Your task to perform on an android device: set an alarm Image 0: 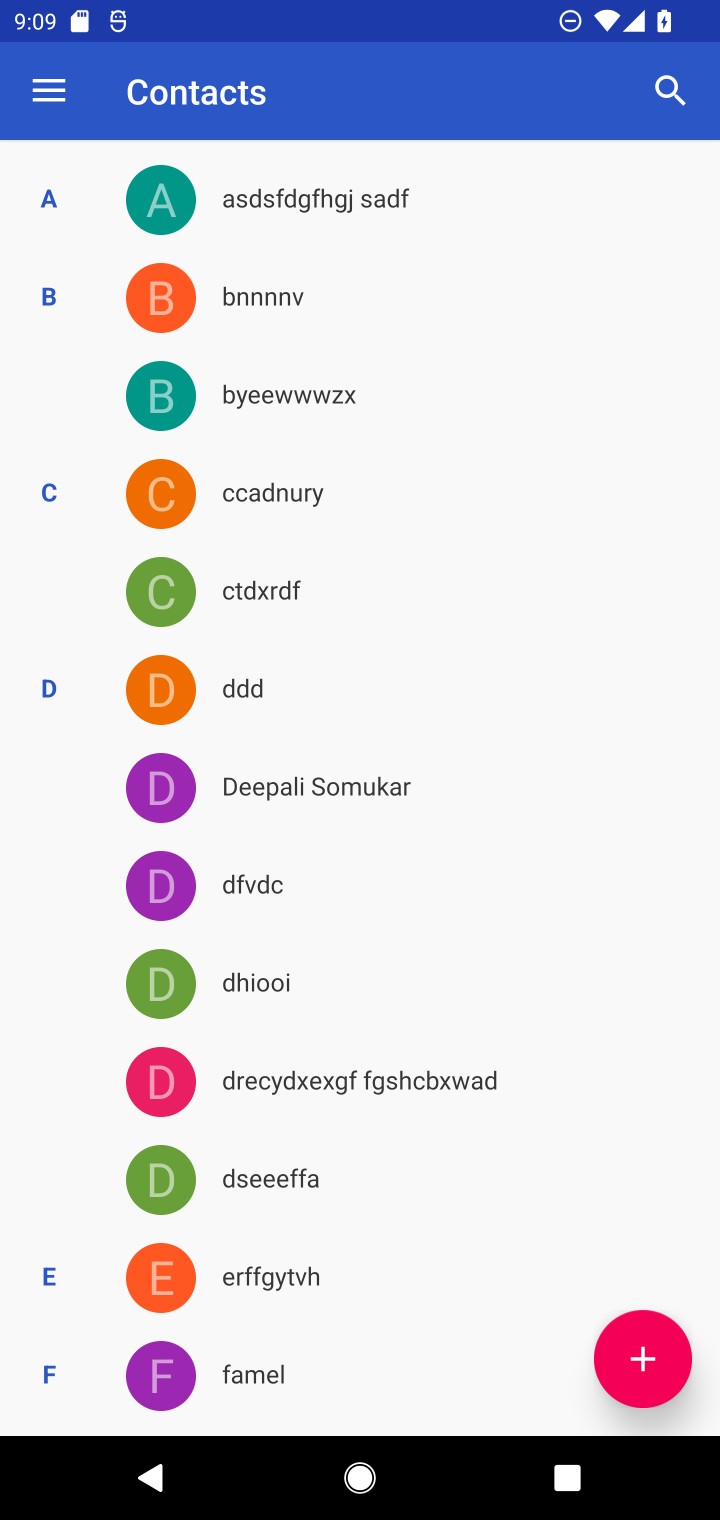
Step 0: task complete